Your task to perform on an android device: turn on the 12-hour format for clock Image 0: 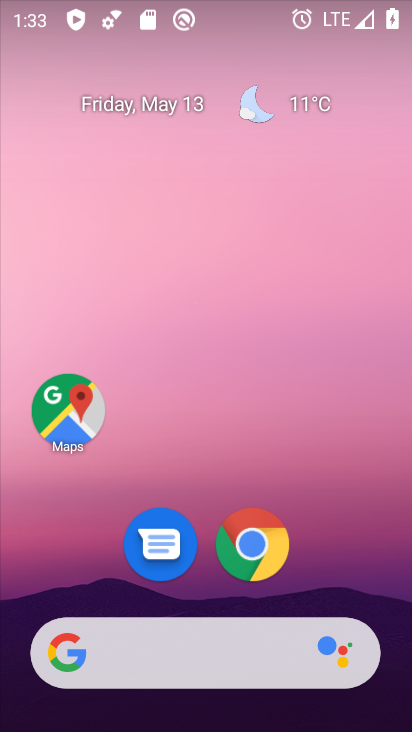
Step 0: drag from (203, 573) to (204, 252)
Your task to perform on an android device: turn on the 12-hour format for clock Image 1: 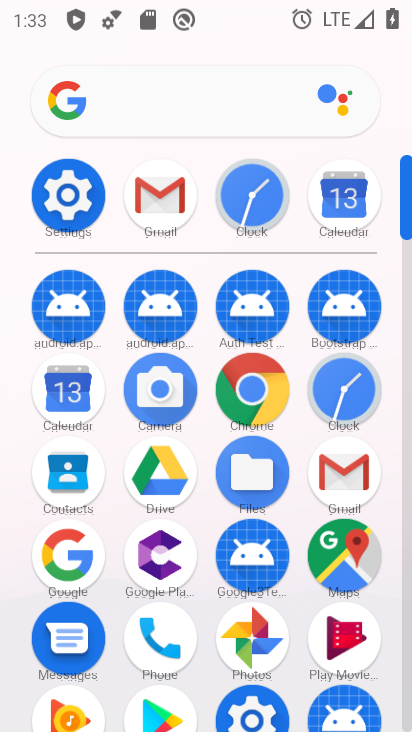
Step 1: click (250, 200)
Your task to perform on an android device: turn on the 12-hour format for clock Image 2: 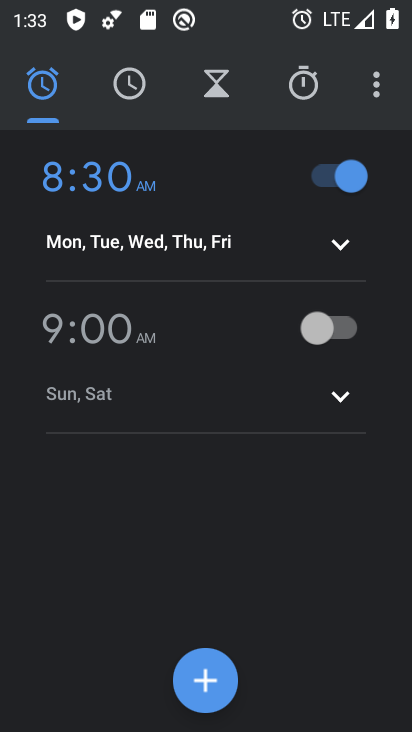
Step 2: click (377, 88)
Your task to perform on an android device: turn on the 12-hour format for clock Image 3: 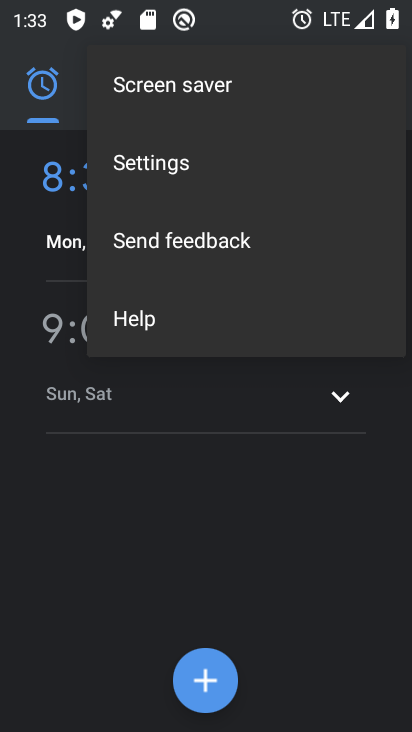
Step 3: click (199, 158)
Your task to perform on an android device: turn on the 12-hour format for clock Image 4: 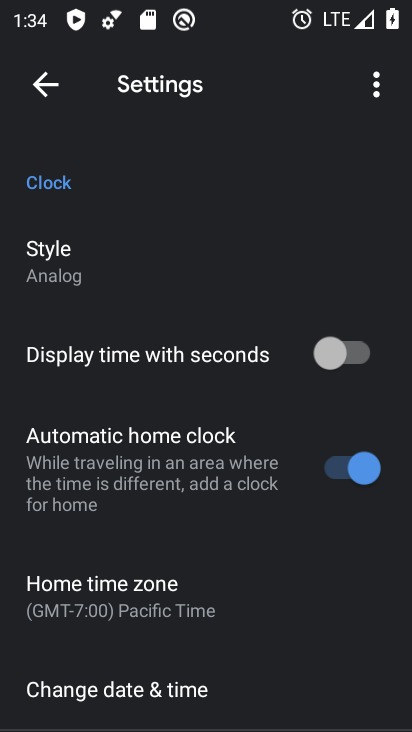
Step 4: drag from (166, 656) to (176, 350)
Your task to perform on an android device: turn on the 12-hour format for clock Image 5: 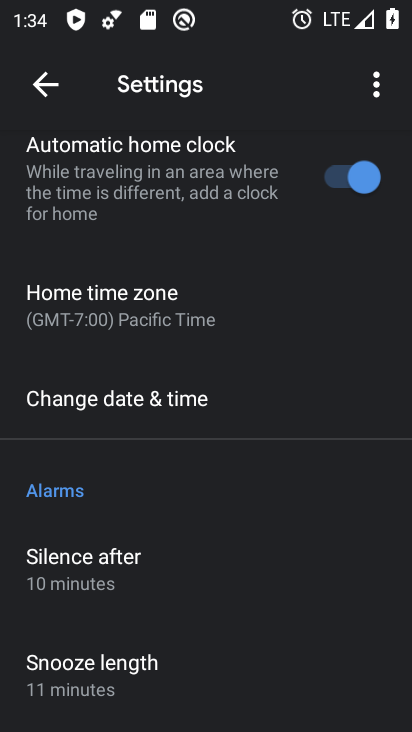
Step 5: click (111, 400)
Your task to perform on an android device: turn on the 12-hour format for clock Image 6: 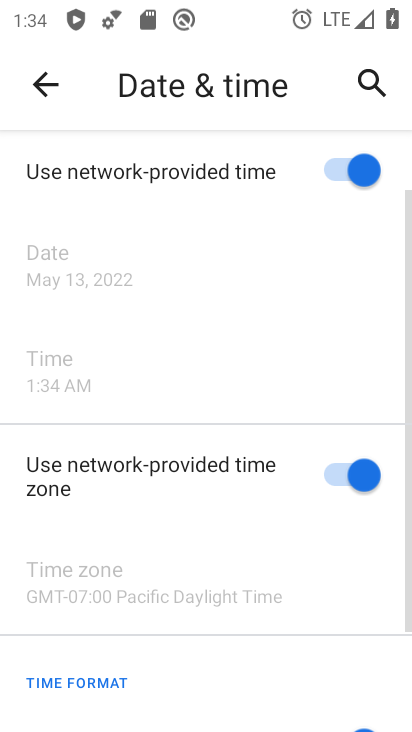
Step 6: task complete